Your task to perform on an android device: turn on translation in the chrome app Image 0: 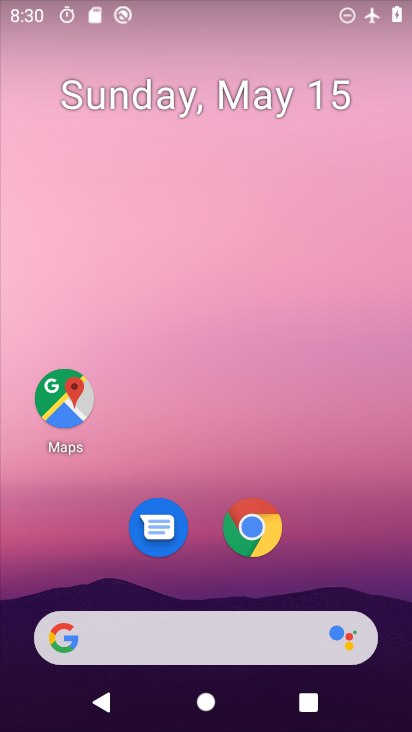
Step 0: click (234, 535)
Your task to perform on an android device: turn on translation in the chrome app Image 1: 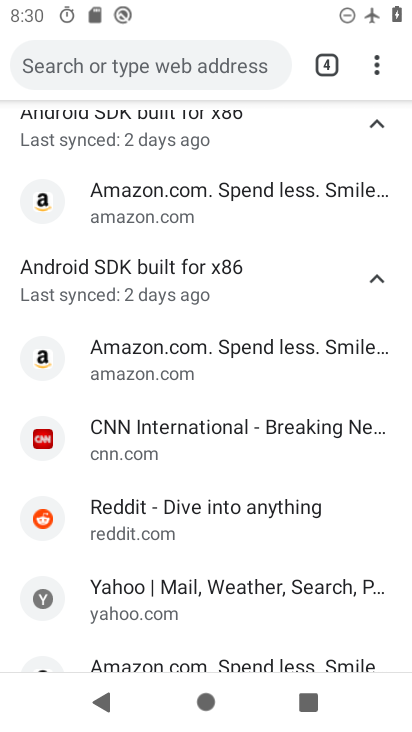
Step 1: drag from (376, 68) to (166, 544)
Your task to perform on an android device: turn on translation in the chrome app Image 2: 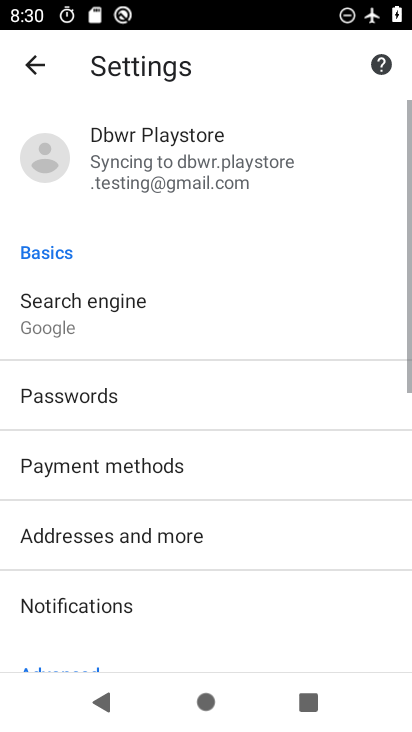
Step 2: drag from (184, 578) to (213, 298)
Your task to perform on an android device: turn on translation in the chrome app Image 3: 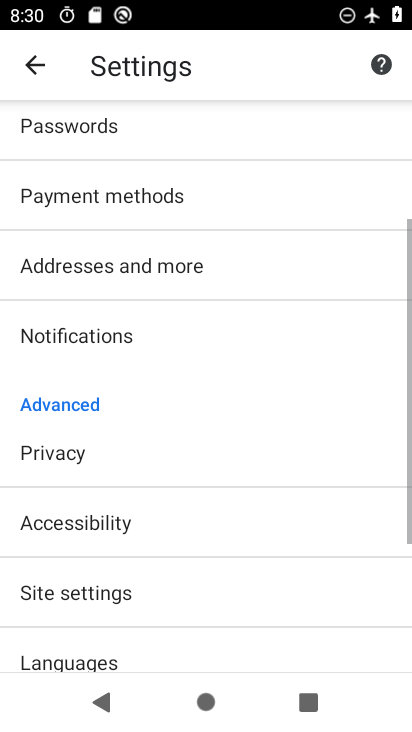
Step 3: drag from (201, 576) to (220, 311)
Your task to perform on an android device: turn on translation in the chrome app Image 4: 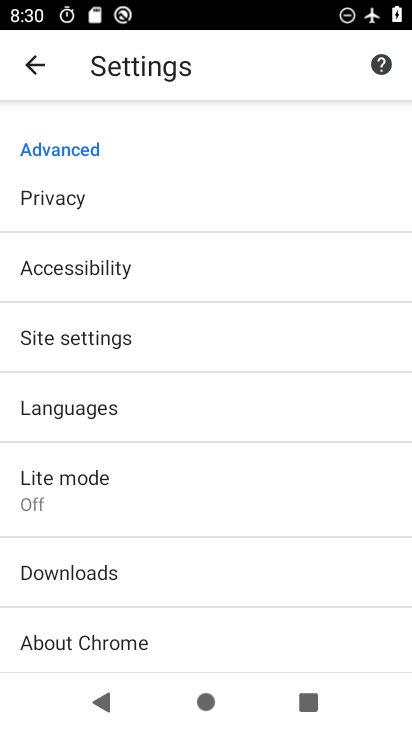
Step 4: click (127, 417)
Your task to perform on an android device: turn on translation in the chrome app Image 5: 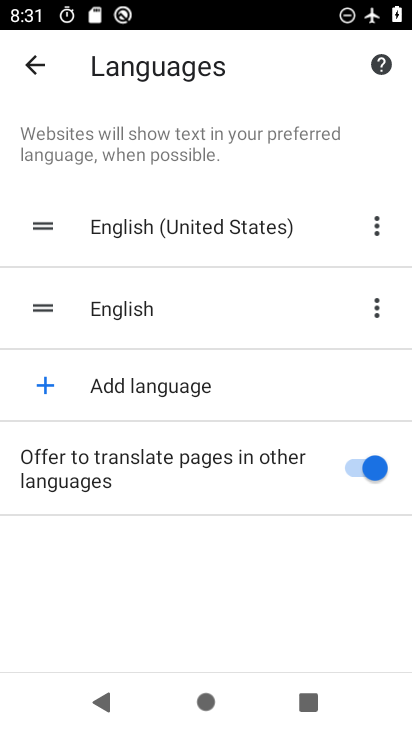
Step 5: task complete